Your task to perform on an android device: Open internet settings Image 0: 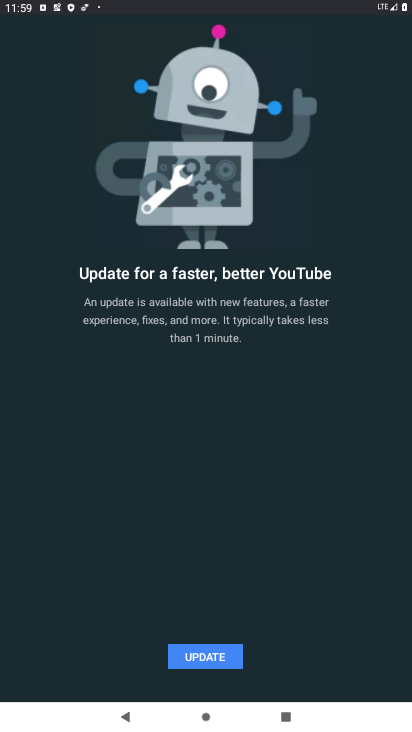
Step 0: press home button
Your task to perform on an android device: Open internet settings Image 1: 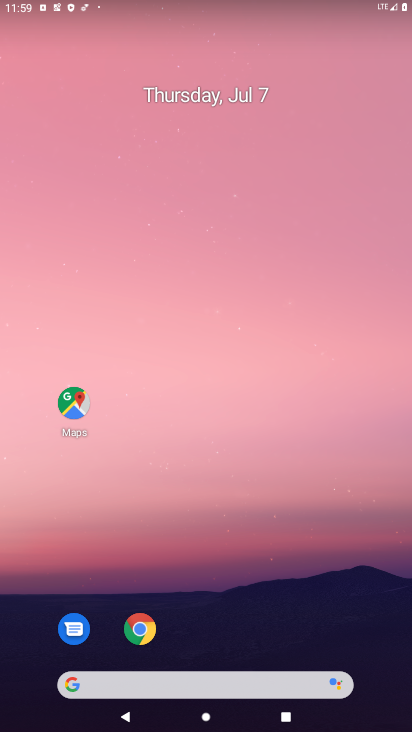
Step 1: drag from (355, 645) to (346, 69)
Your task to perform on an android device: Open internet settings Image 2: 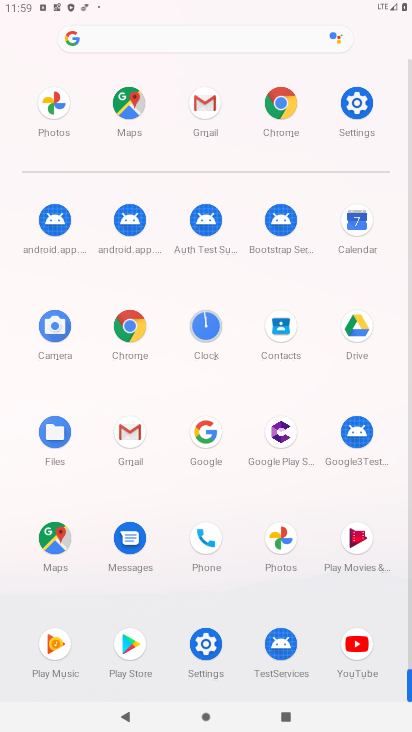
Step 2: click (205, 648)
Your task to perform on an android device: Open internet settings Image 3: 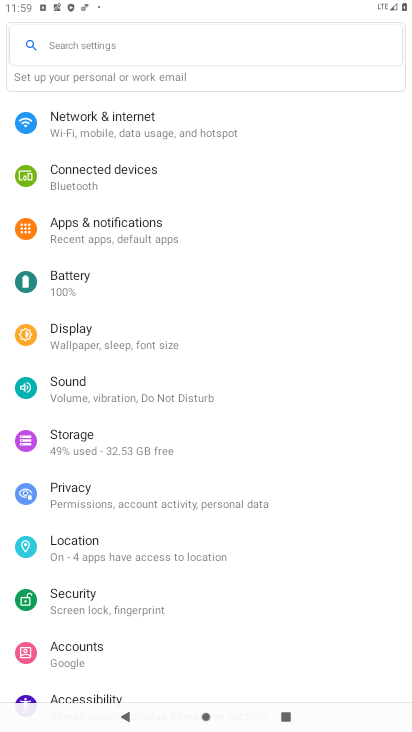
Step 3: click (119, 118)
Your task to perform on an android device: Open internet settings Image 4: 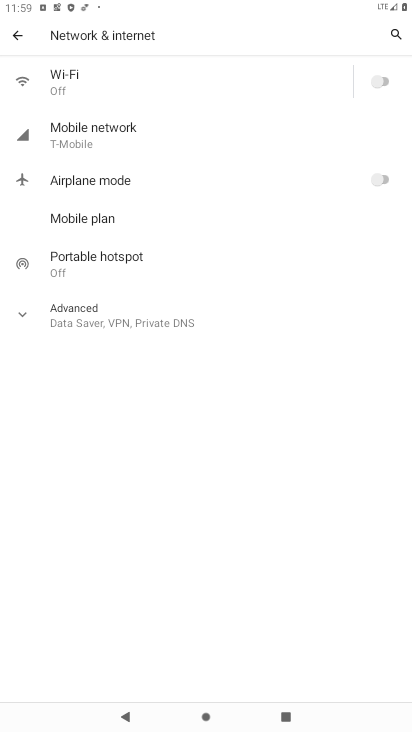
Step 4: click (57, 87)
Your task to perform on an android device: Open internet settings Image 5: 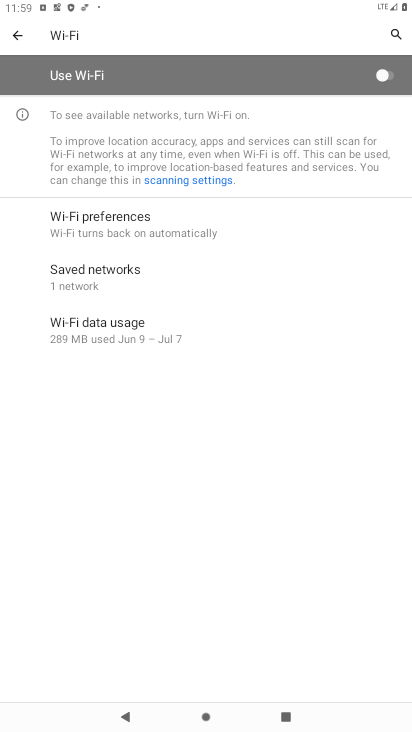
Step 5: task complete